Your task to perform on an android device: uninstall "WhatsApp Messenger" Image 0: 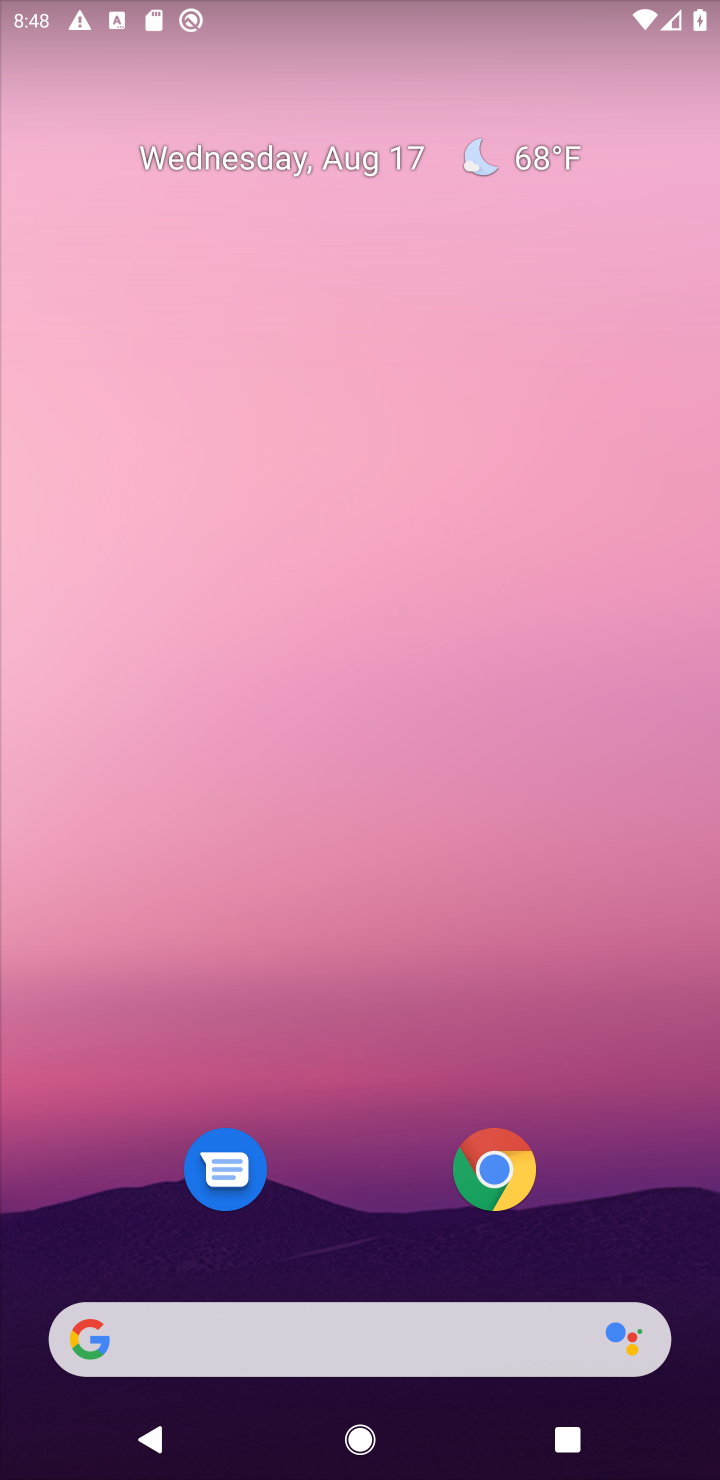
Step 0: drag from (321, 1236) to (487, 196)
Your task to perform on an android device: uninstall "WhatsApp Messenger" Image 1: 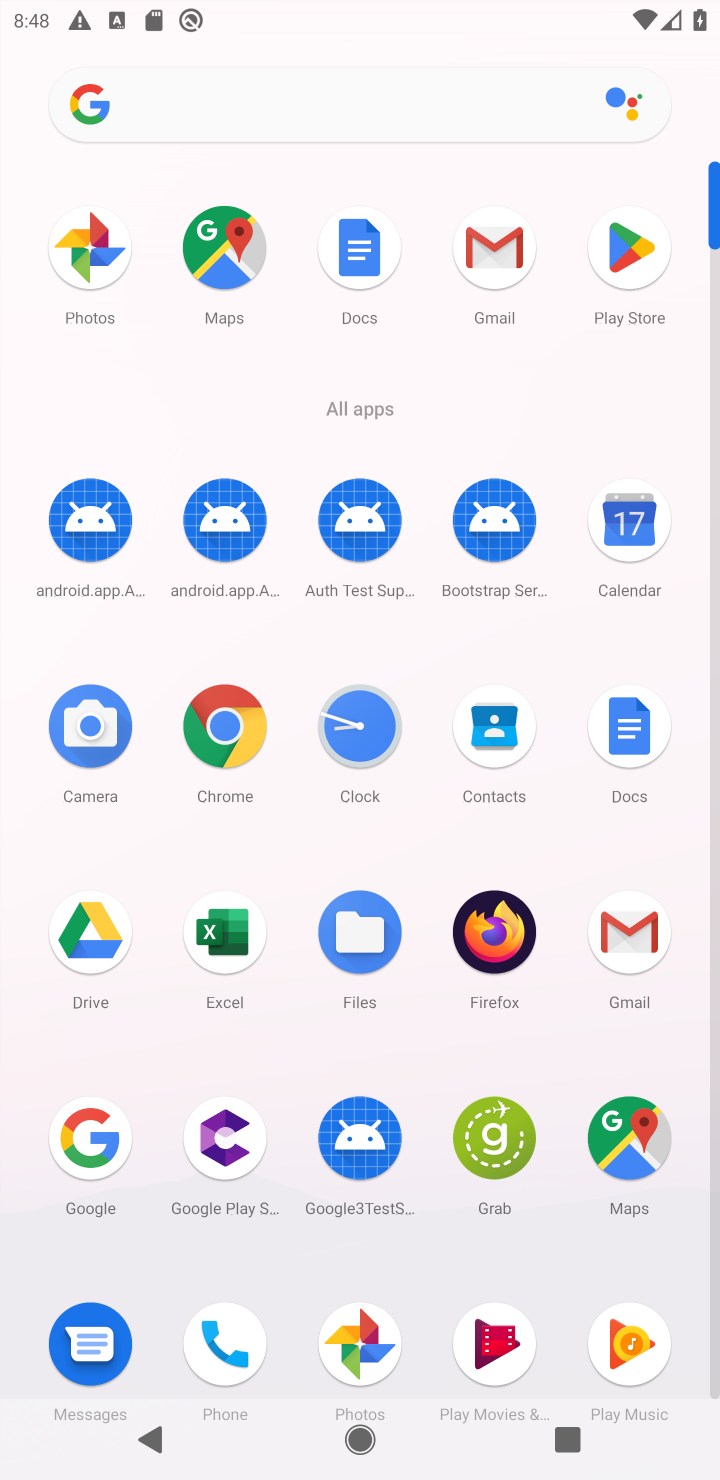
Step 1: click (657, 280)
Your task to perform on an android device: uninstall "WhatsApp Messenger" Image 2: 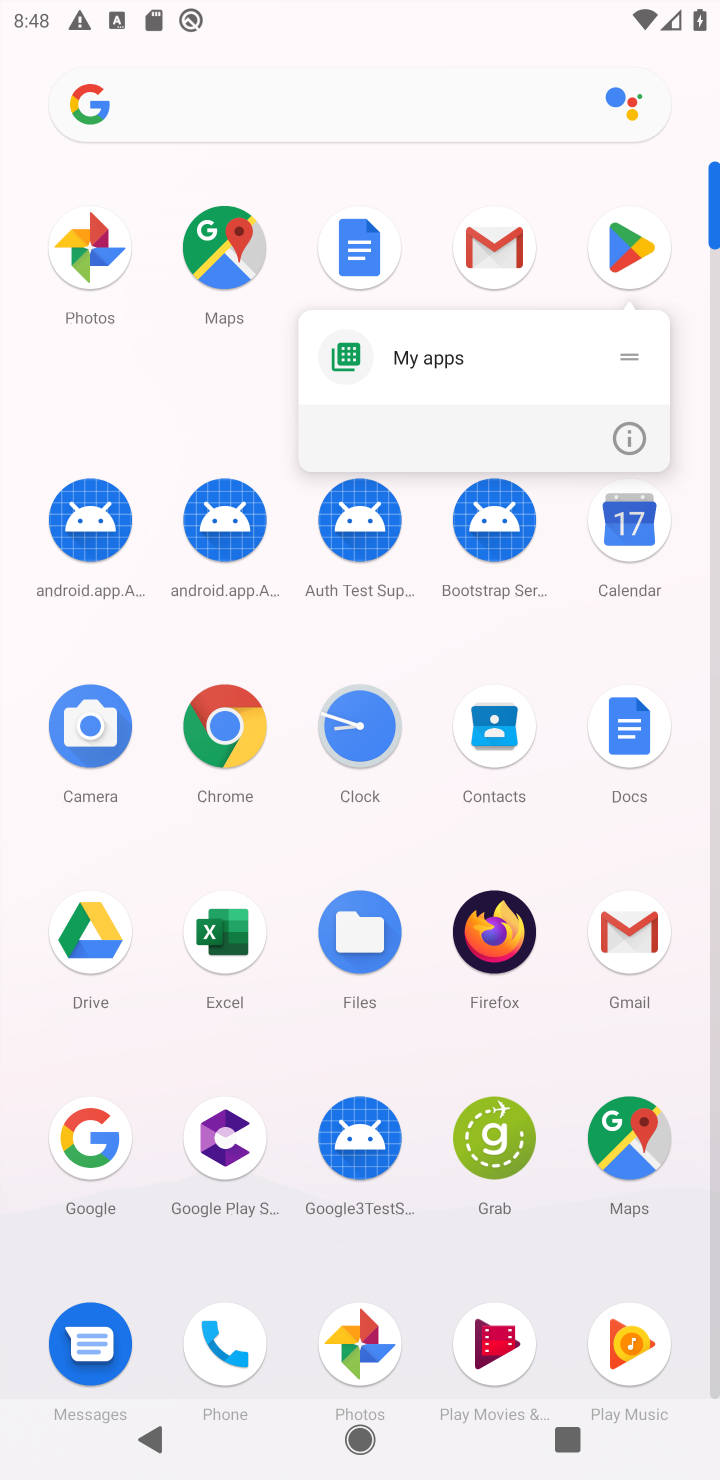
Step 2: click (621, 245)
Your task to perform on an android device: uninstall "WhatsApp Messenger" Image 3: 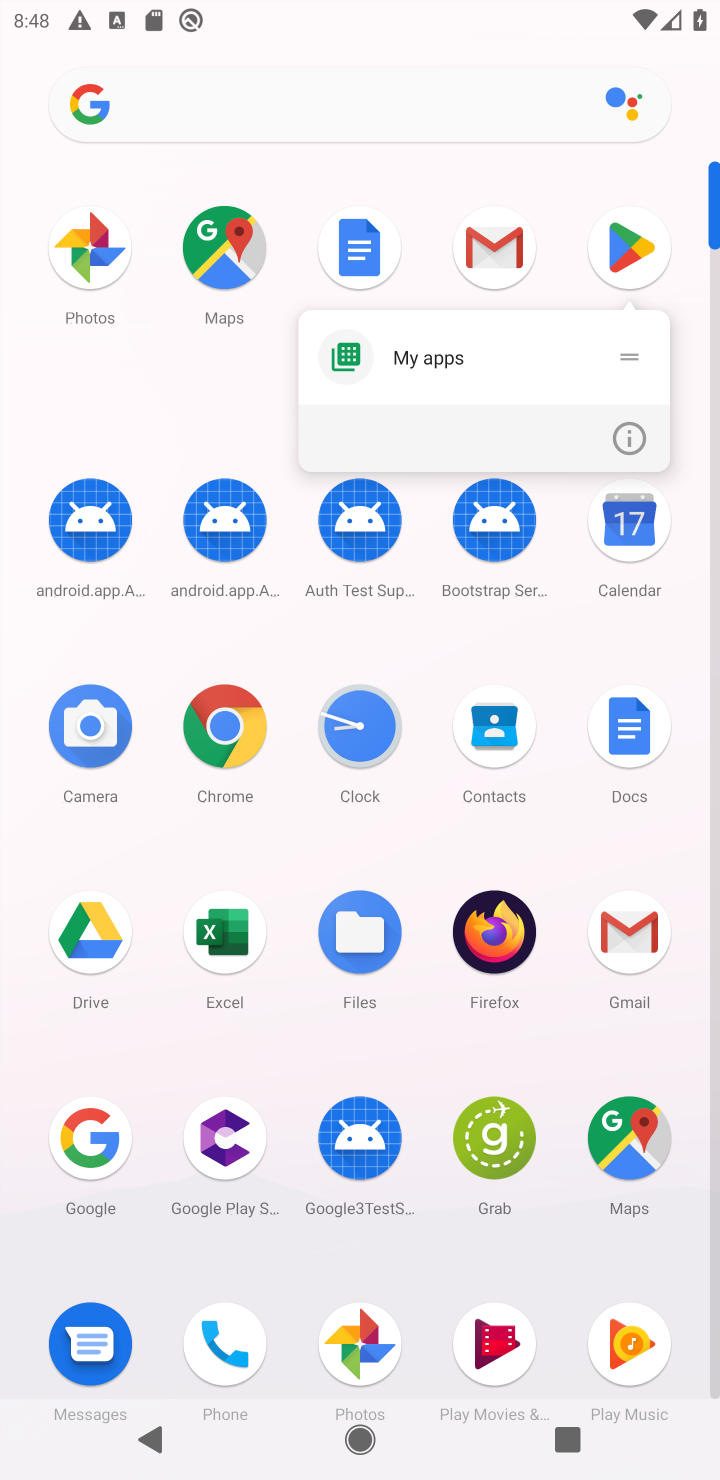
Step 3: click (609, 251)
Your task to perform on an android device: uninstall "WhatsApp Messenger" Image 4: 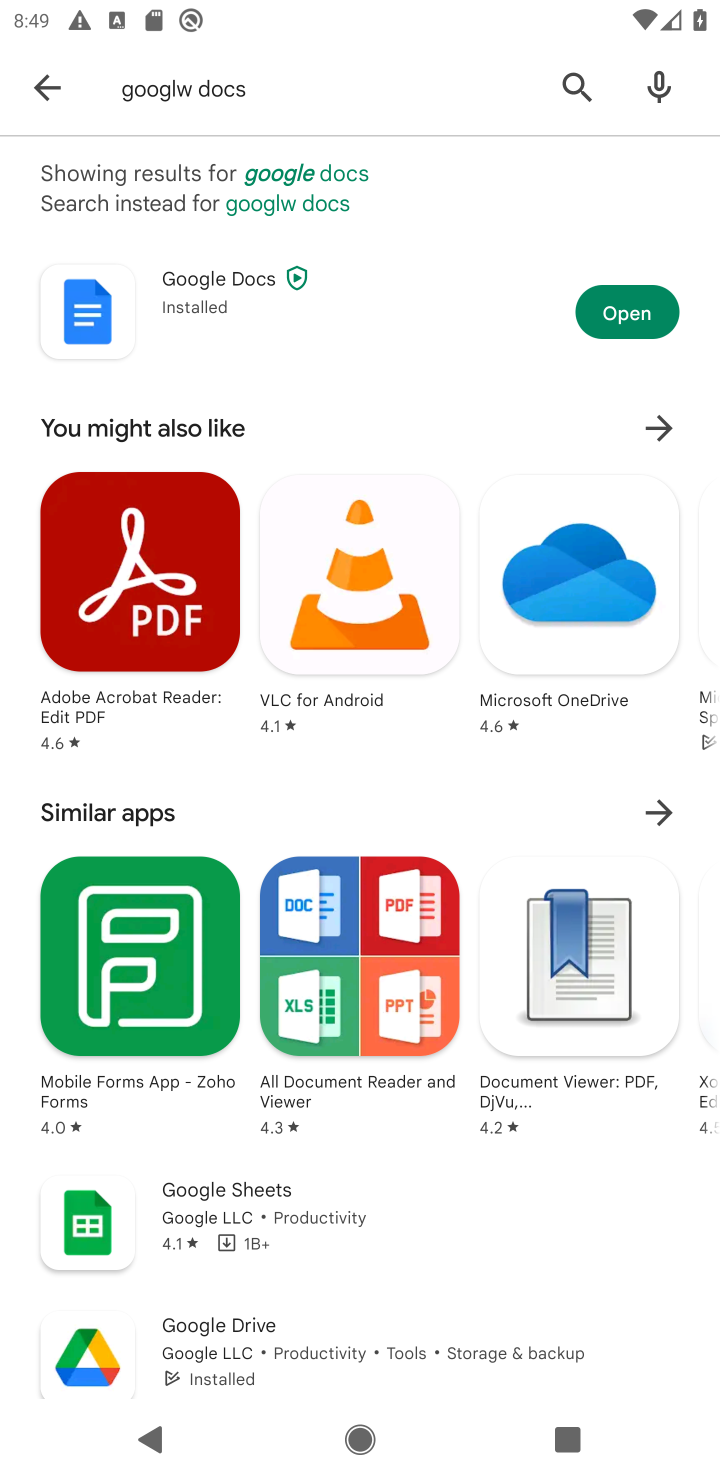
Step 4: click (213, 78)
Your task to perform on an android device: uninstall "WhatsApp Messenger" Image 5: 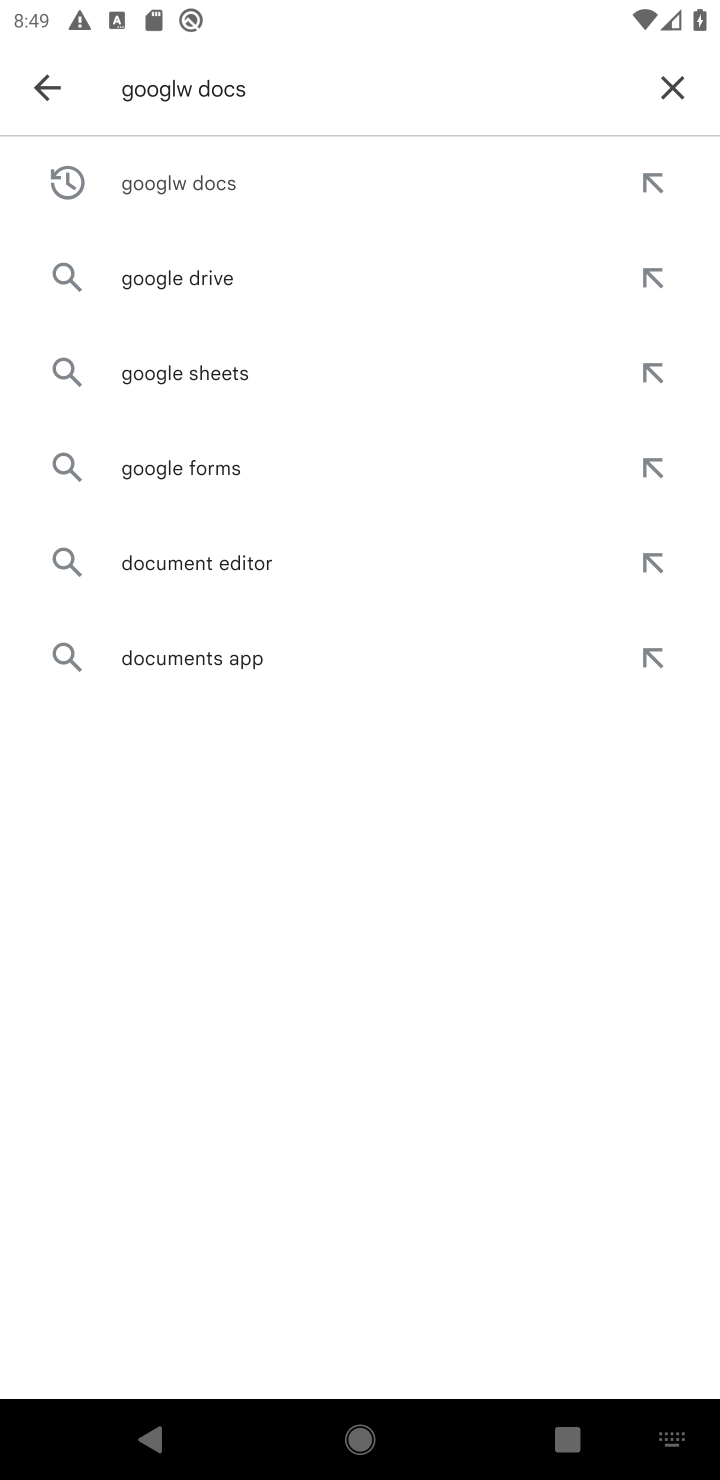
Step 5: click (673, 85)
Your task to perform on an android device: uninstall "WhatsApp Messenger" Image 6: 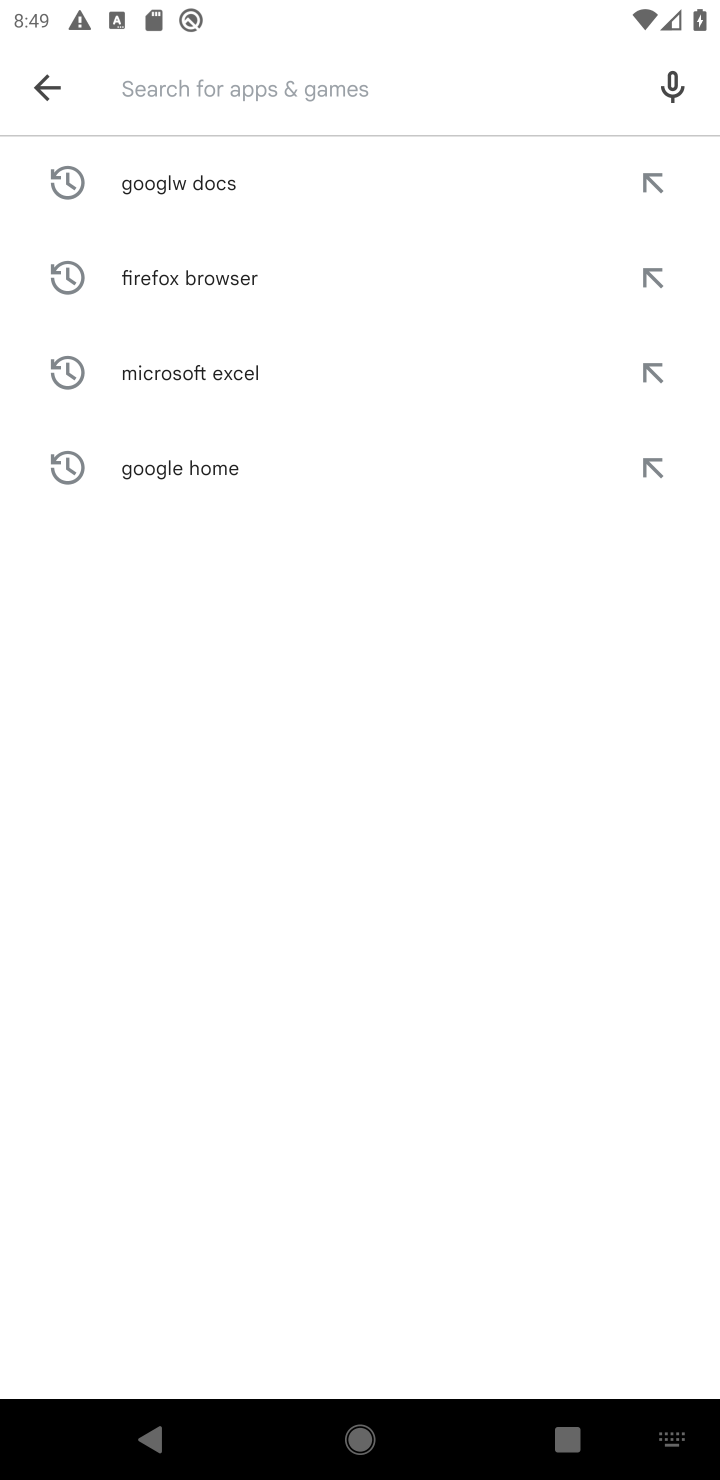
Step 6: type "whatsapp messenger"
Your task to perform on an android device: uninstall "WhatsApp Messenger" Image 7: 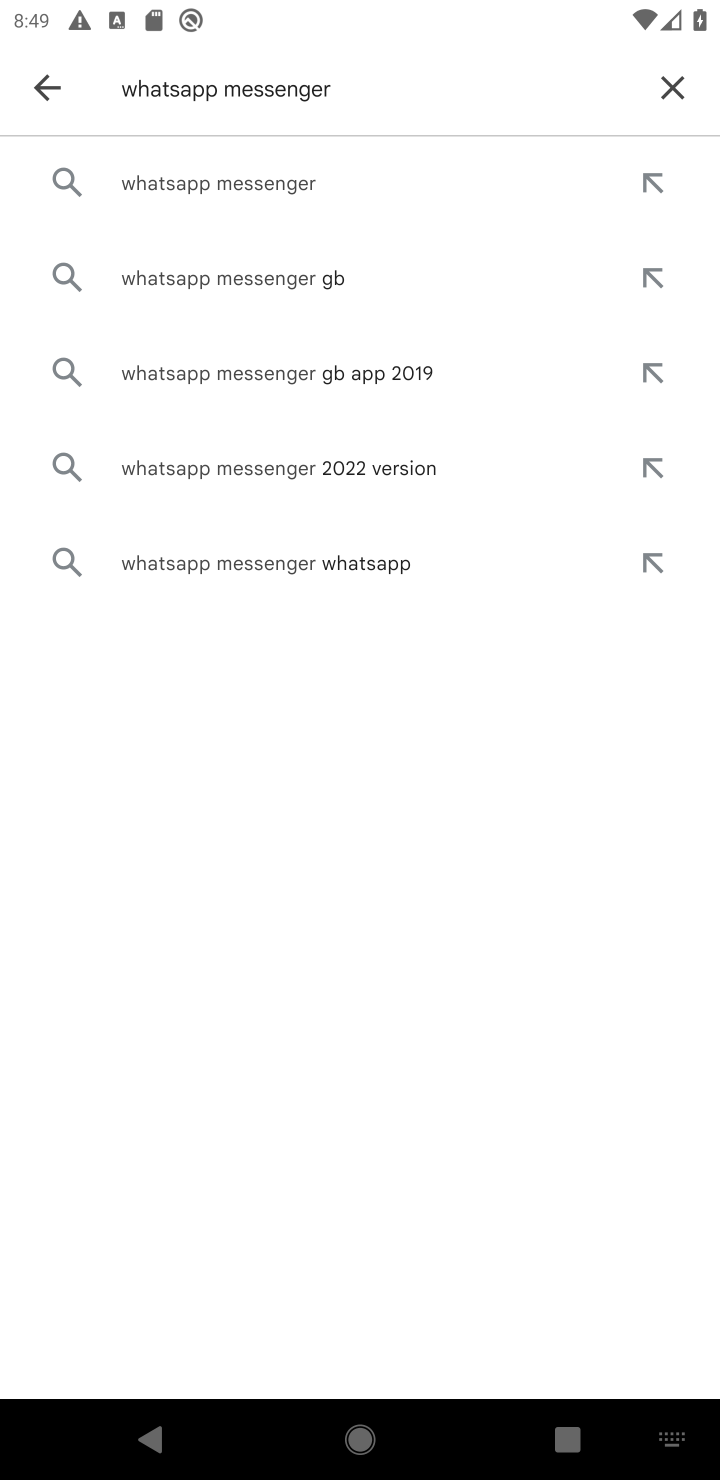
Step 7: click (229, 197)
Your task to perform on an android device: uninstall "WhatsApp Messenger" Image 8: 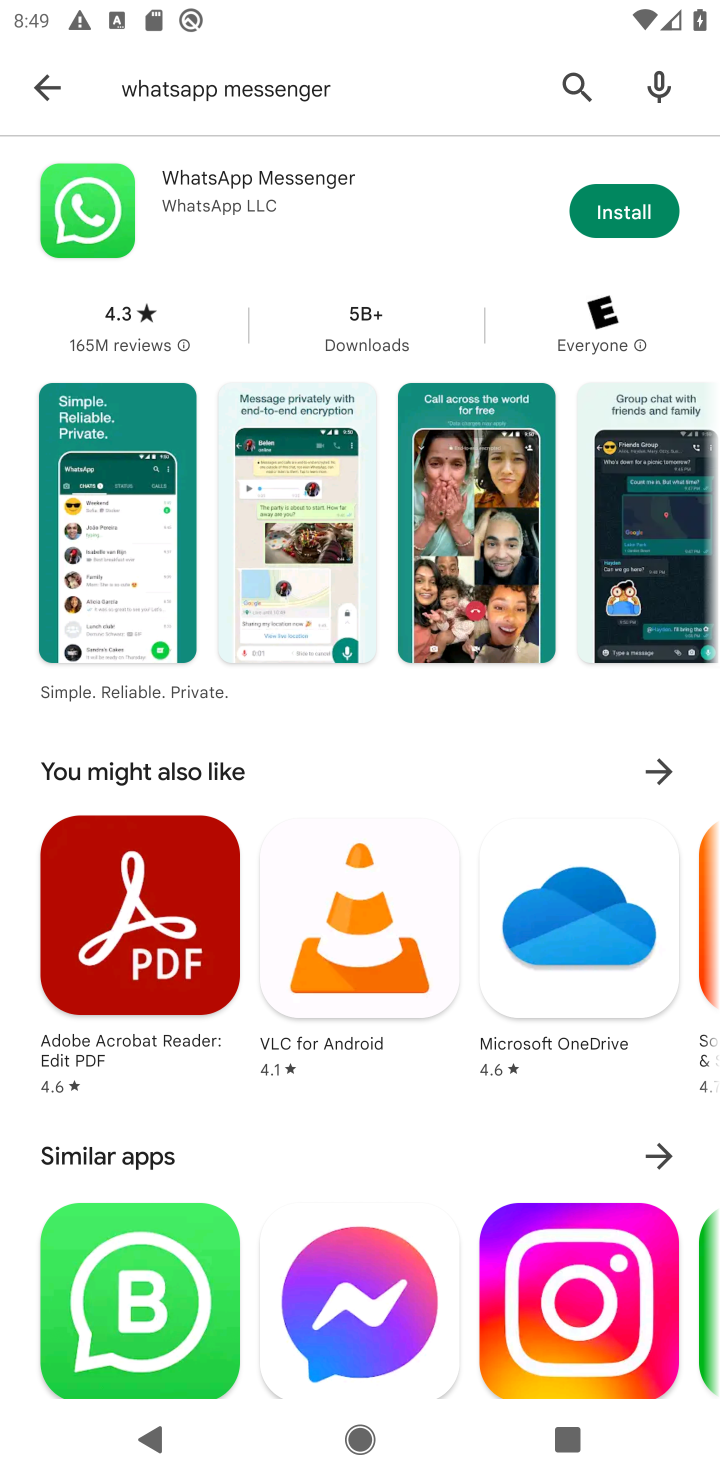
Step 8: task complete